Your task to perform on an android device: Go to accessibility settings Image 0: 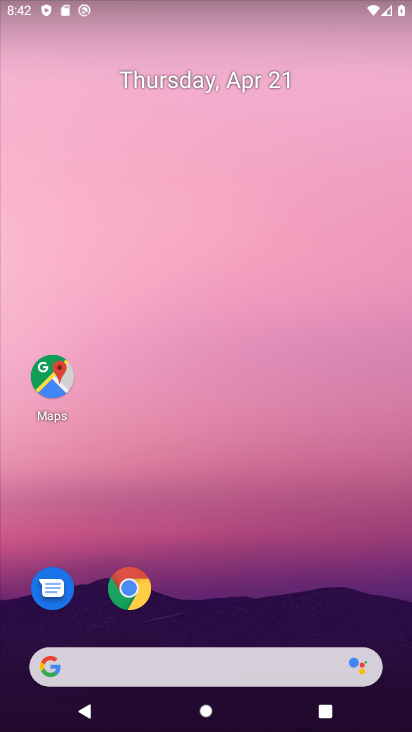
Step 0: drag from (282, 510) to (218, 6)
Your task to perform on an android device: Go to accessibility settings Image 1: 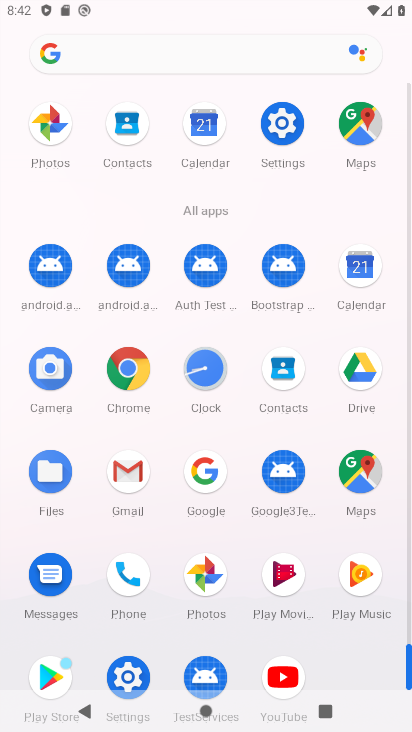
Step 1: drag from (8, 506) to (6, 353)
Your task to perform on an android device: Go to accessibility settings Image 2: 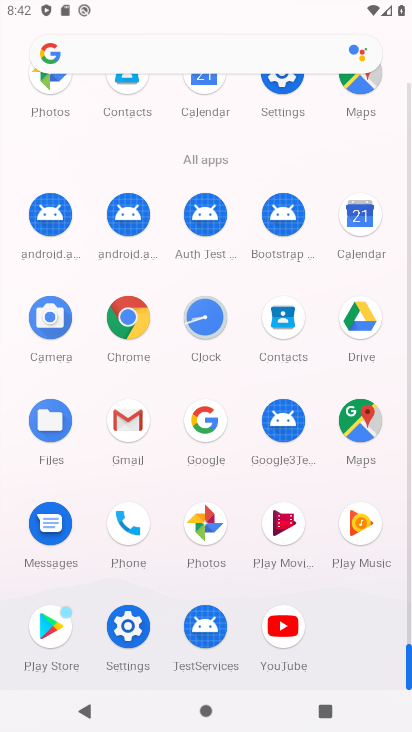
Step 2: click (127, 618)
Your task to perform on an android device: Go to accessibility settings Image 3: 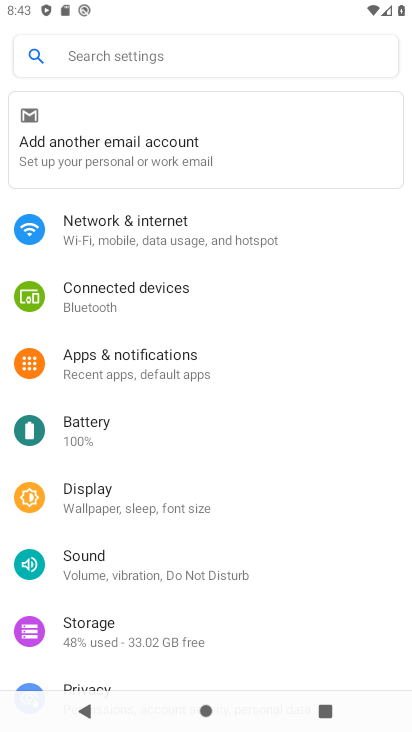
Step 3: drag from (263, 505) to (274, 143)
Your task to perform on an android device: Go to accessibility settings Image 4: 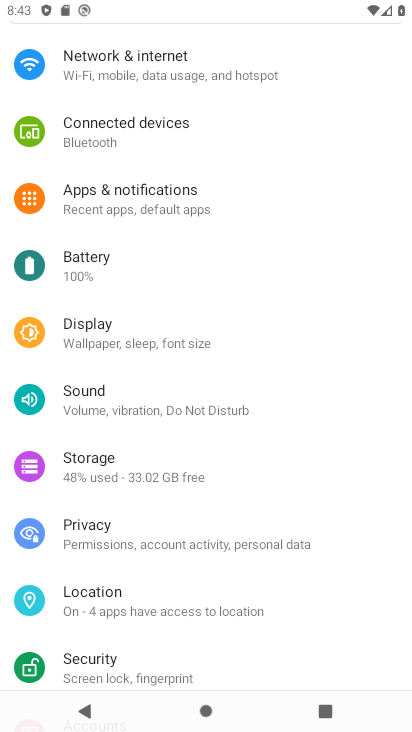
Step 4: drag from (322, 501) to (300, 165)
Your task to perform on an android device: Go to accessibility settings Image 5: 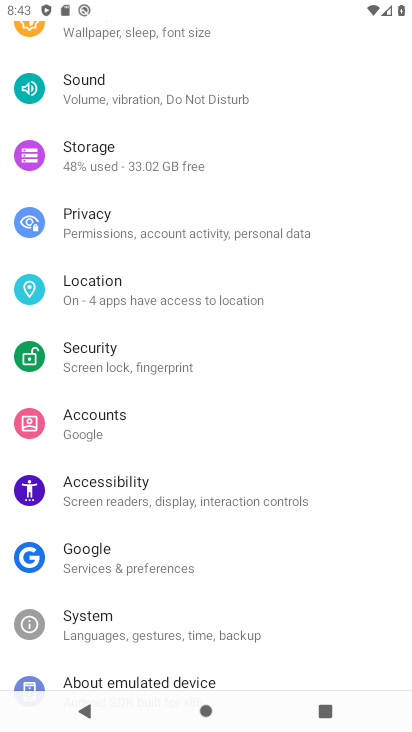
Step 5: click (178, 474)
Your task to perform on an android device: Go to accessibility settings Image 6: 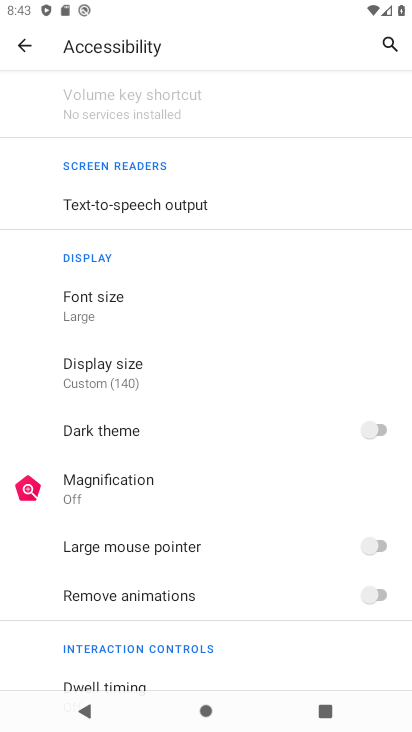
Step 6: task complete